Your task to perform on an android device: Go to Android settings Image 0: 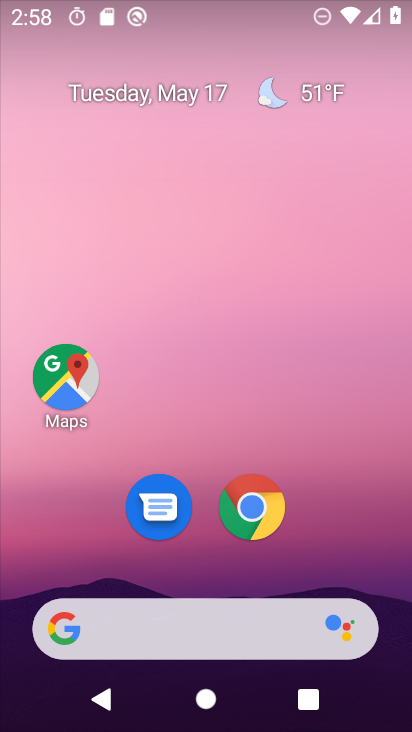
Step 0: drag from (206, 558) to (249, 89)
Your task to perform on an android device: Go to Android settings Image 1: 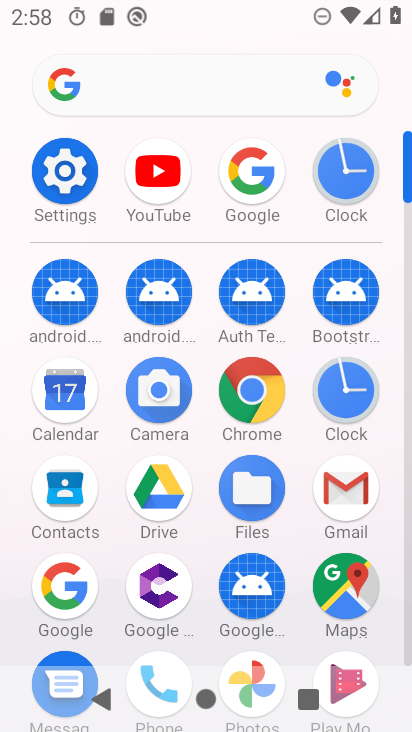
Step 1: click (65, 169)
Your task to perform on an android device: Go to Android settings Image 2: 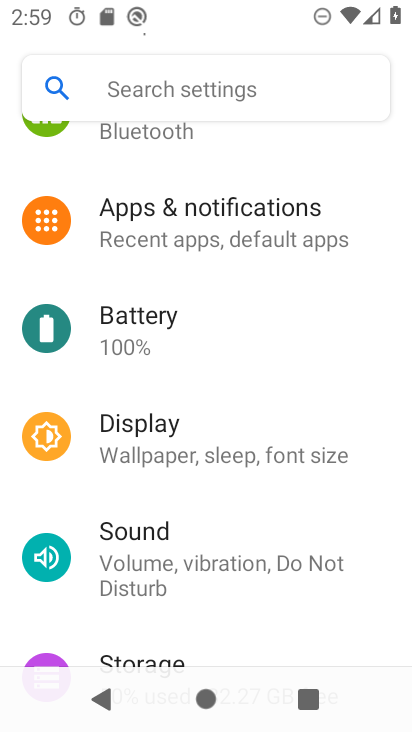
Step 2: task complete